Your task to perform on an android device: turn pop-ups off in chrome Image 0: 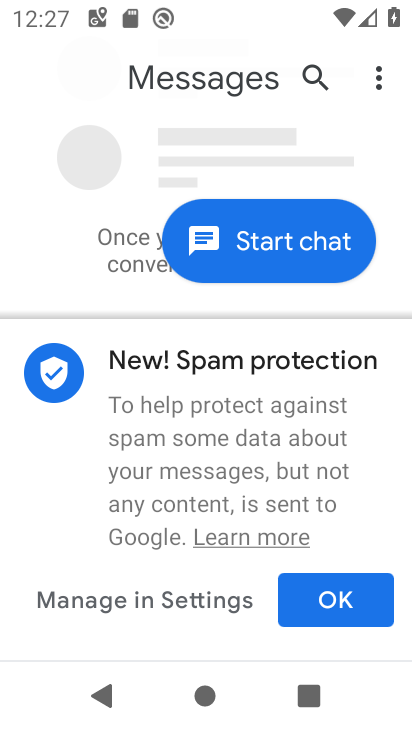
Step 0: press home button
Your task to perform on an android device: turn pop-ups off in chrome Image 1: 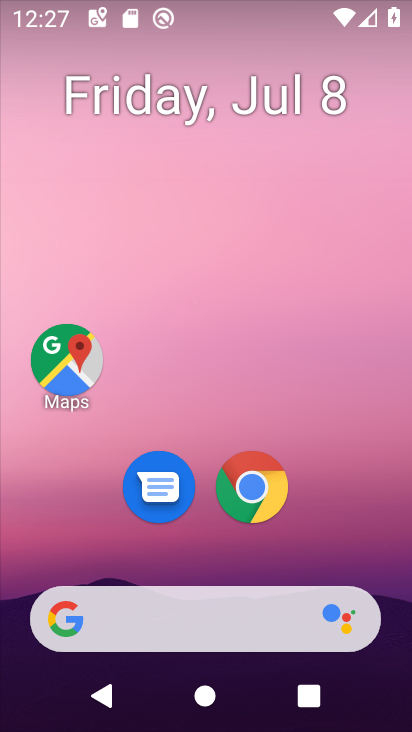
Step 1: drag from (377, 536) to (351, 24)
Your task to perform on an android device: turn pop-ups off in chrome Image 2: 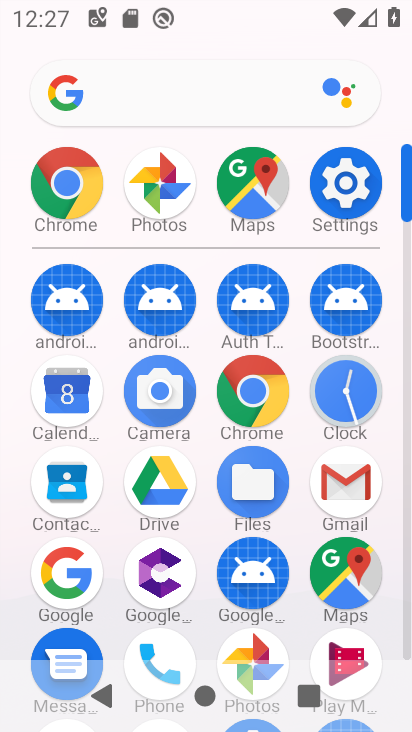
Step 2: click (273, 406)
Your task to perform on an android device: turn pop-ups off in chrome Image 3: 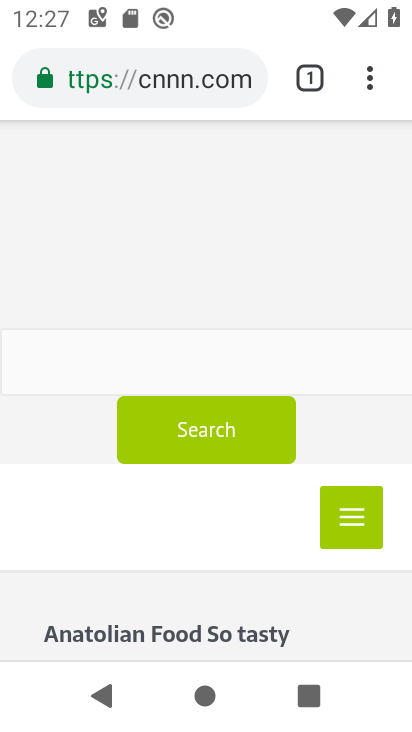
Step 3: click (370, 83)
Your task to perform on an android device: turn pop-ups off in chrome Image 4: 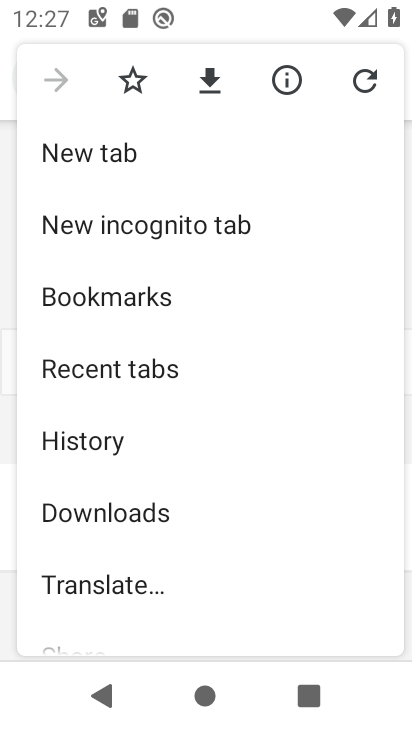
Step 4: drag from (307, 401) to (315, 281)
Your task to perform on an android device: turn pop-ups off in chrome Image 5: 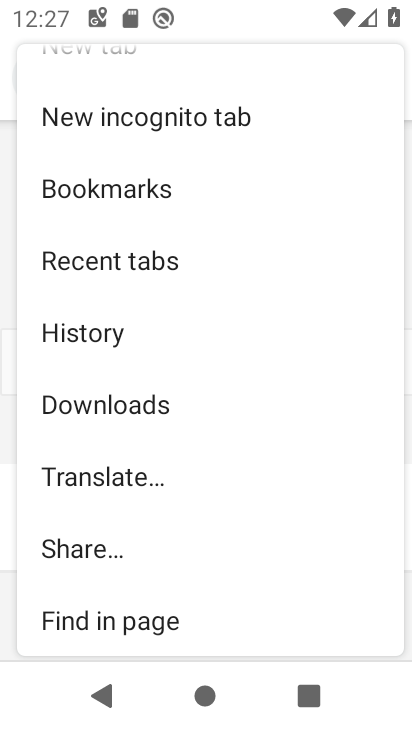
Step 5: drag from (338, 445) to (322, 337)
Your task to perform on an android device: turn pop-ups off in chrome Image 6: 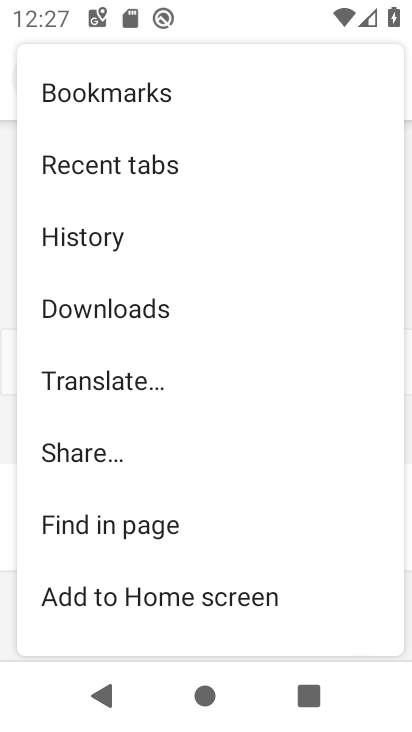
Step 6: drag from (327, 467) to (336, 305)
Your task to perform on an android device: turn pop-ups off in chrome Image 7: 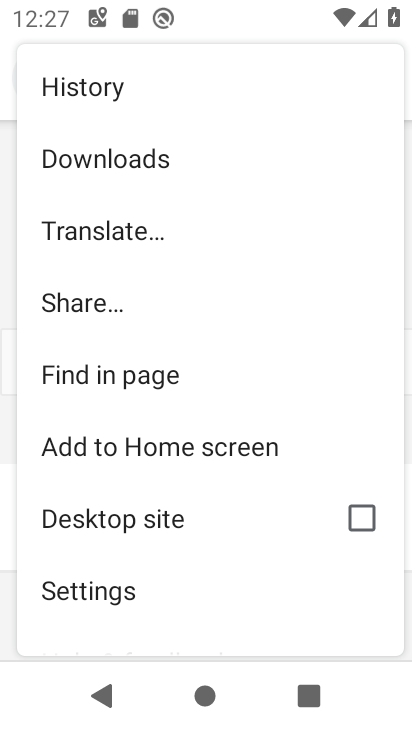
Step 7: drag from (277, 558) to (288, 433)
Your task to perform on an android device: turn pop-ups off in chrome Image 8: 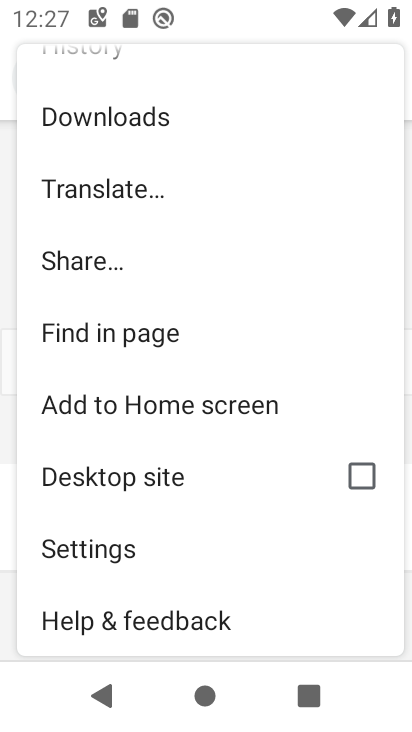
Step 8: click (242, 554)
Your task to perform on an android device: turn pop-ups off in chrome Image 9: 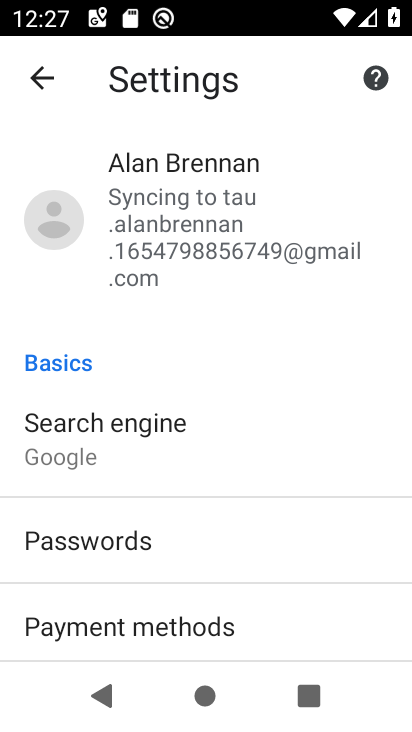
Step 9: drag from (243, 555) to (263, 489)
Your task to perform on an android device: turn pop-ups off in chrome Image 10: 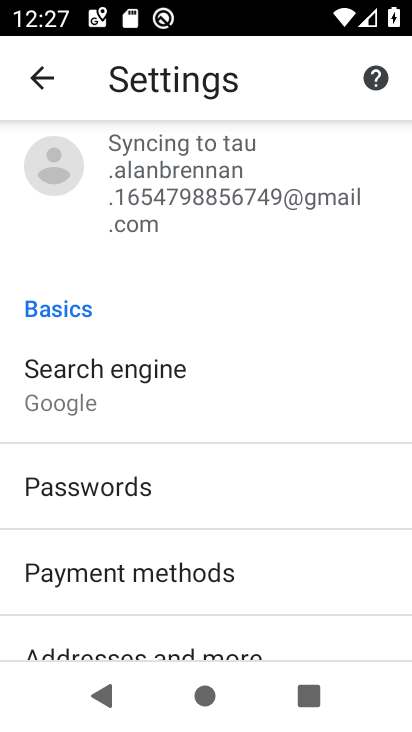
Step 10: drag from (293, 573) to (310, 490)
Your task to perform on an android device: turn pop-ups off in chrome Image 11: 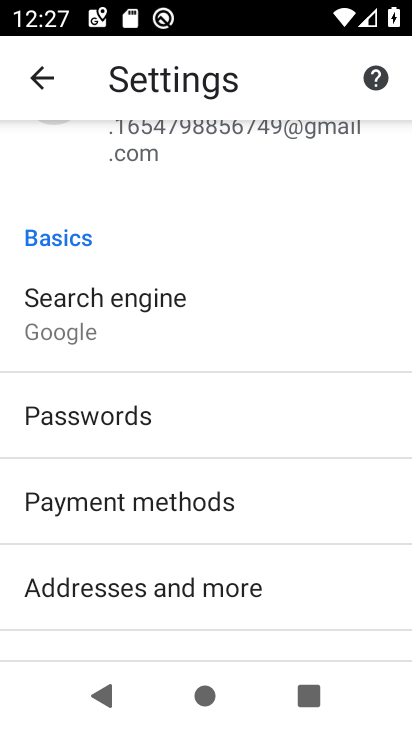
Step 11: drag from (333, 546) to (333, 403)
Your task to perform on an android device: turn pop-ups off in chrome Image 12: 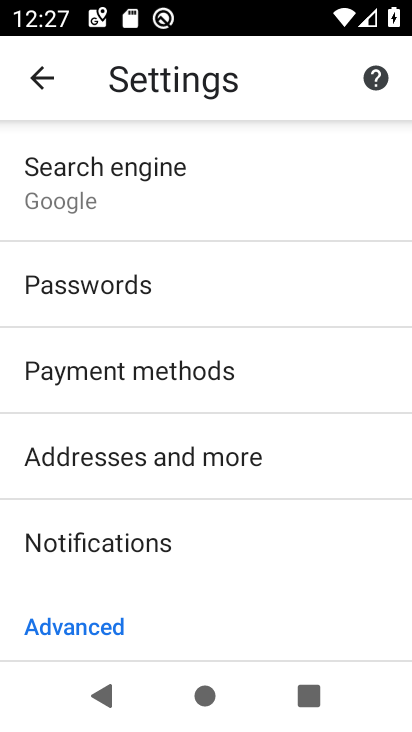
Step 12: drag from (337, 547) to (345, 457)
Your task to perform on an android device: turn pop-ups off in chrome Image 13: 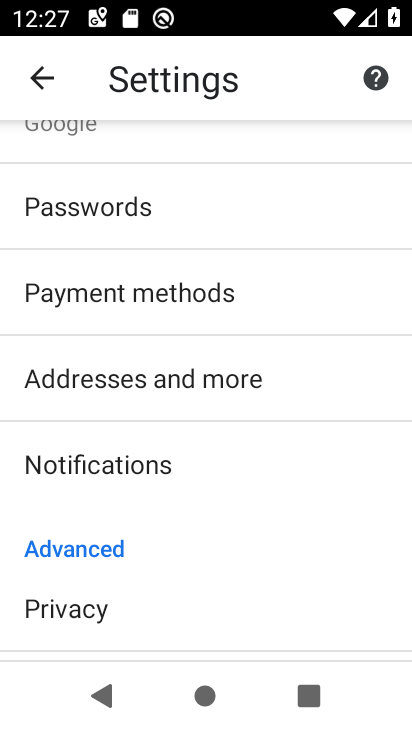
Step 13: drag from (349, 591) to (345, 424)
Your task to perform on an android device: turn pop-ups off in chrome Image 14: 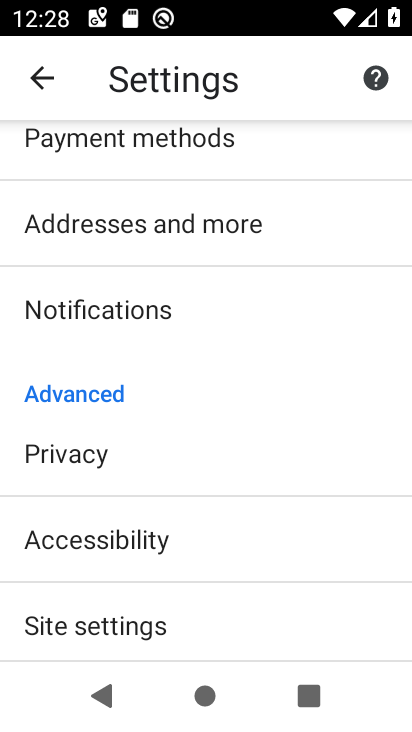
Step 14: drag from (336, 553) to (341, 415)
Your task to perform on an android device: turn pop-ups off in chrome Image 15: 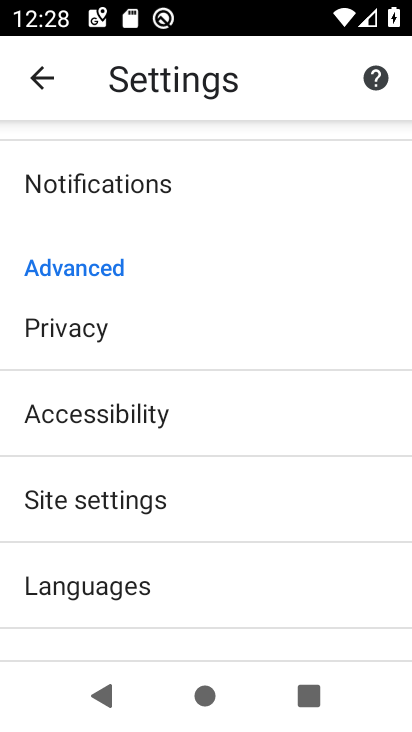
Step 15: drag from (331, 537) to (329, 407)
Your task to perform on an android device: turn pop-ups off in chrome Image 16: 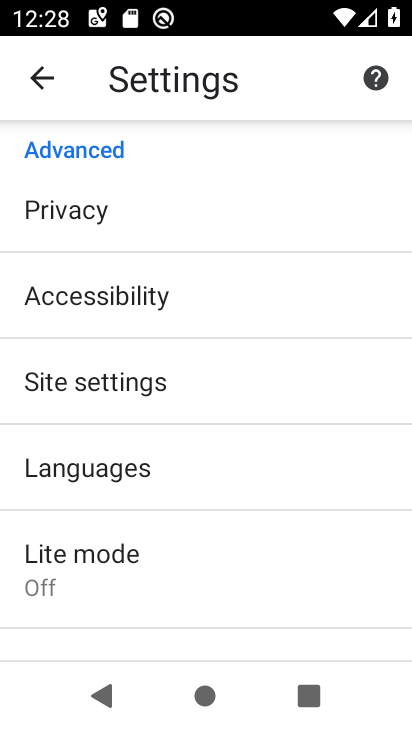
Step 16: drag from (353, 522) to (333, 407)
Your task to perform on an android device: turn pop-ups off in chrome Image 17: 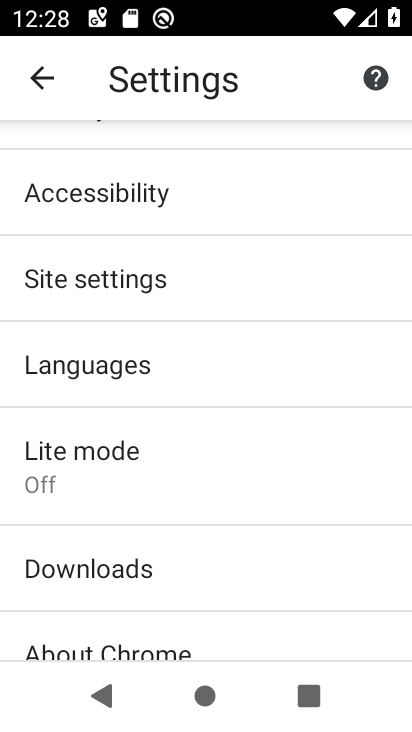
Step 17: click (269, 277)
Your task to perform on an android device: turn pop-ups off in chrome Image 18: 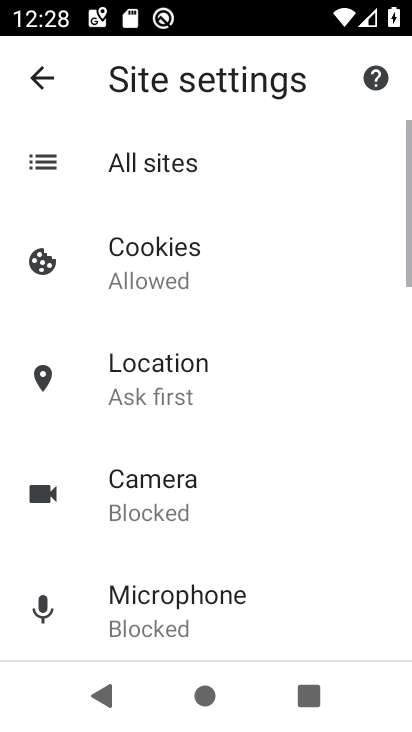
Step 18: drag from (292, 395) to (294, 295)
Your task to perform on an android device: turn pop-ups off in chrome Image 19: 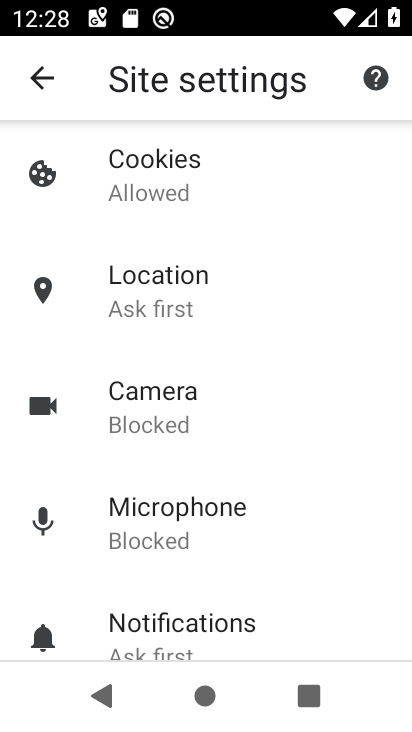
Step 19: drag from (313, 453) to (321, 351)
Your task to perform on an android device: turn pop-ups off in chrome Image 20: 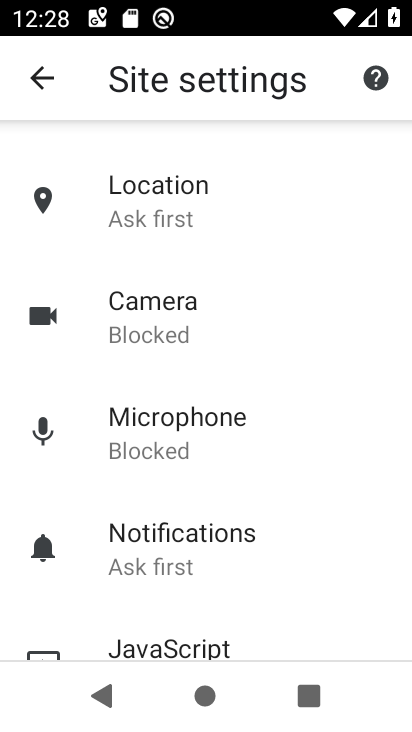
Step 20: drag from (345, 453) to (339, 366)
Your task to perform on an android device: turn pop-ups off in chrome Image 21: 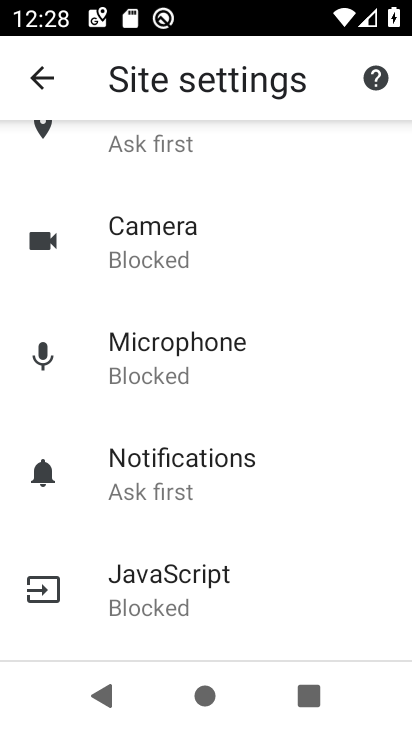
Step 21: drag from (332, 469) to (329, 385)
Your task to perform on an android device: turn pop-ups off in chrome Image 22: 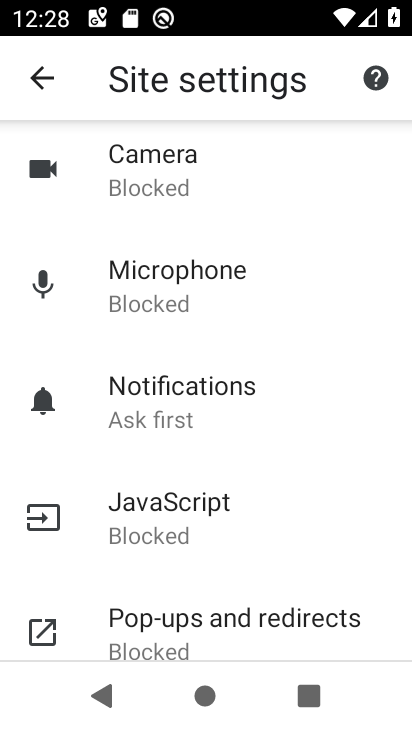
Step 22: drag from (332, 505) to (329, 401)
Your task to perform on an android device: turn pop-ups off in chrome Image 23: 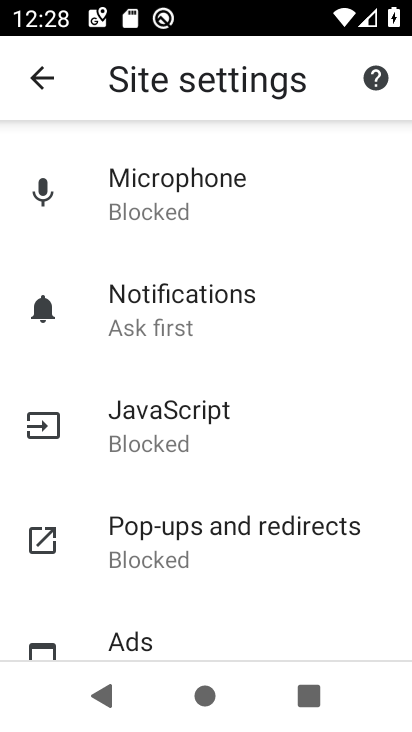
Step 23: drag from (339, 560) to (331, 449)
Your task to perform on an android device: turn pop-ups off in chrome Image 24: 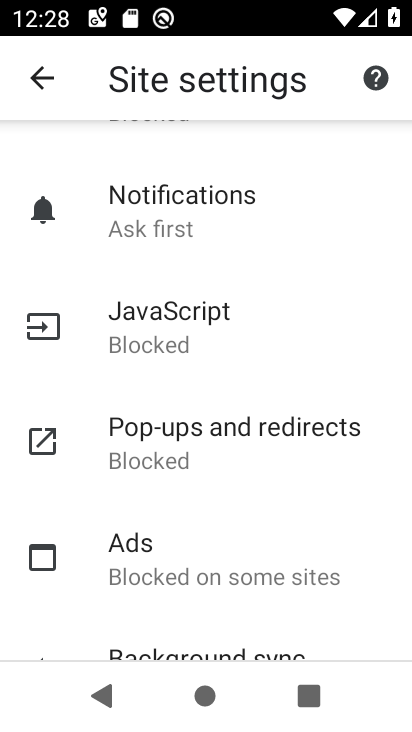
Step 24: drag from (343, 507) to (343, 430)
Your task to perform on an android device: turn pop-ups off in chrome Image 25: 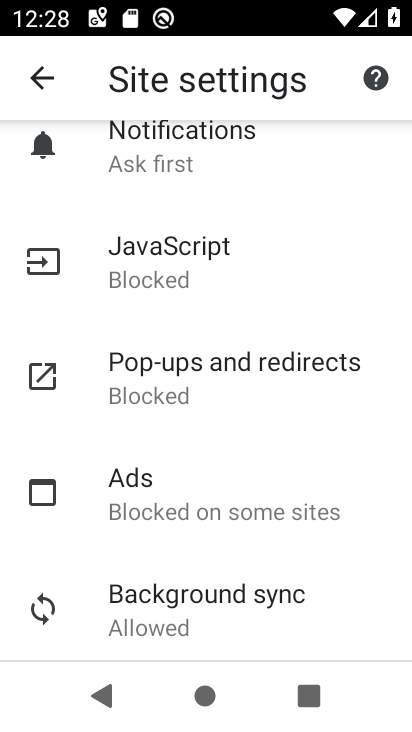
Step 25: click (335, 405)
Your task to perform on an android device: turn pop-ups off in chrome Image 26: 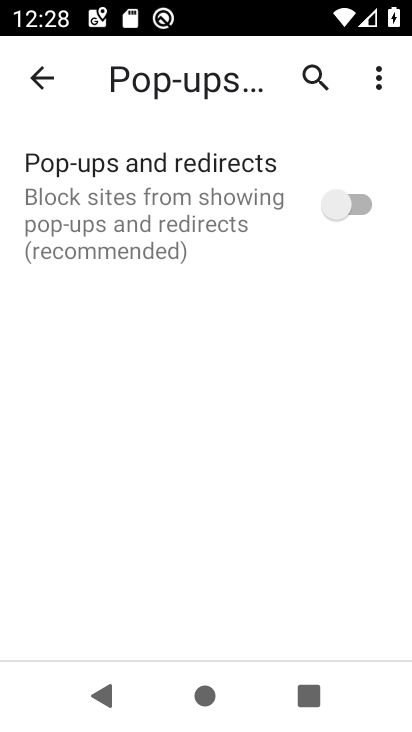
Step 26: task complete